Your task to perform on an android device: toggle javascript in the chrome app Image 0: 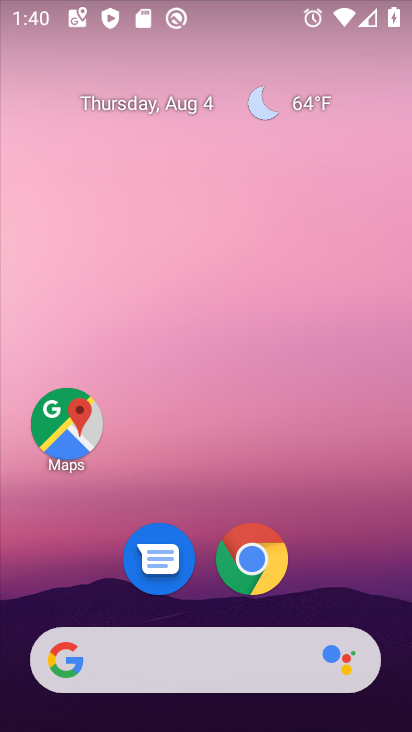
Step 0: click (256, 558)
Your task to perform on an android device: toggle javascript in the chrome app Image 1: 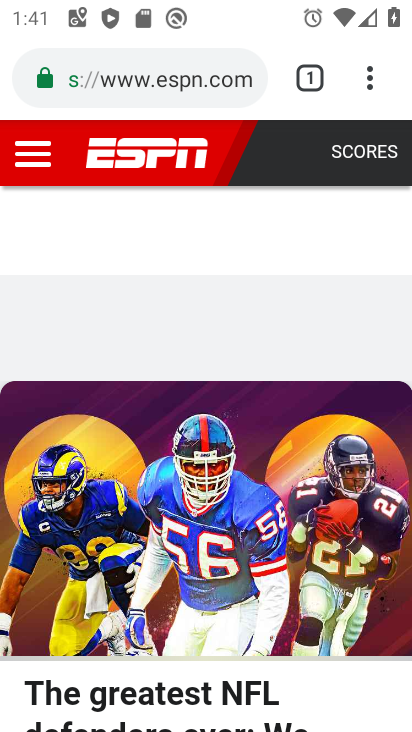
Step 1: click (371, 79)
Your task to perform on an android device: toggle javascript in the chrome app Image 2: 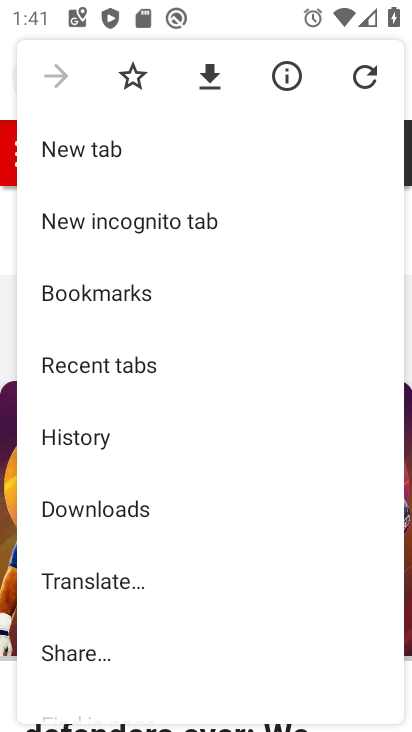
Step 2: drag from (96, 537) to (153, 457)
Your task to perform on an android device: toggle javascript in the chrome app Image 3: 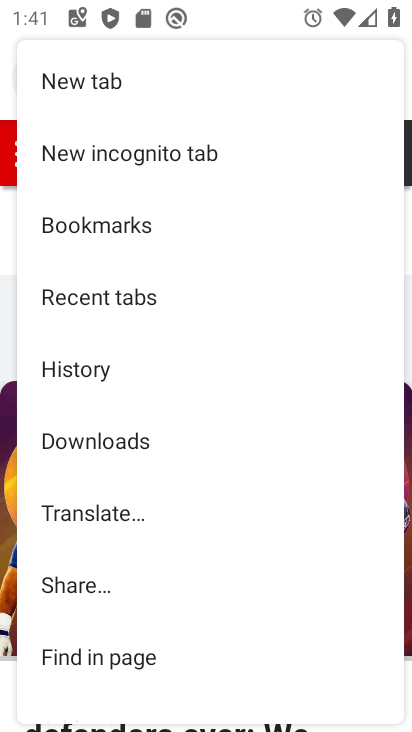
Step 3: drag from (108, 576) to (180, 482)
Your task to perform on an android device: toggle javascript in the chrome app Image 4: 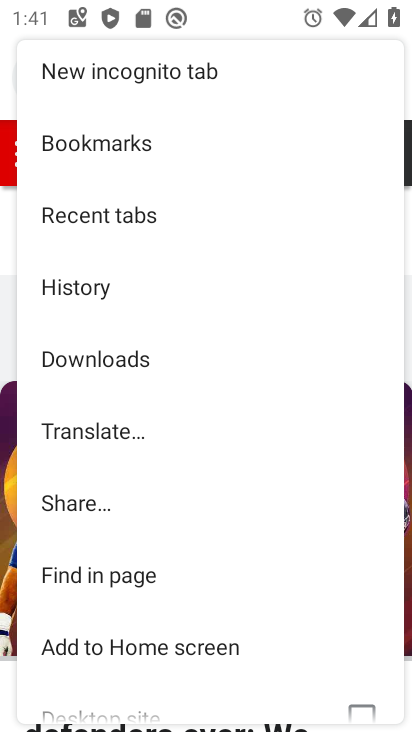
Step 4: drag from (94, 600) to (197, 480)
Your task to perform on an android device: toggle javascript in the chrome app Image 5: 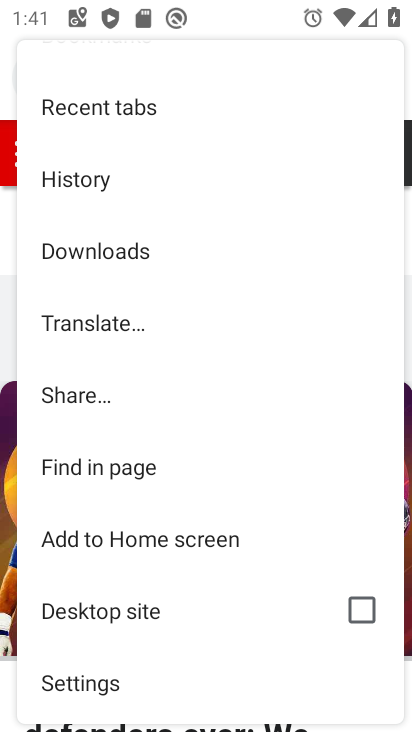
Step 5: drag from (123, 571) to (230, 436)
Your task to perform on an android device: toggle javascript in the chrome app Image 6: 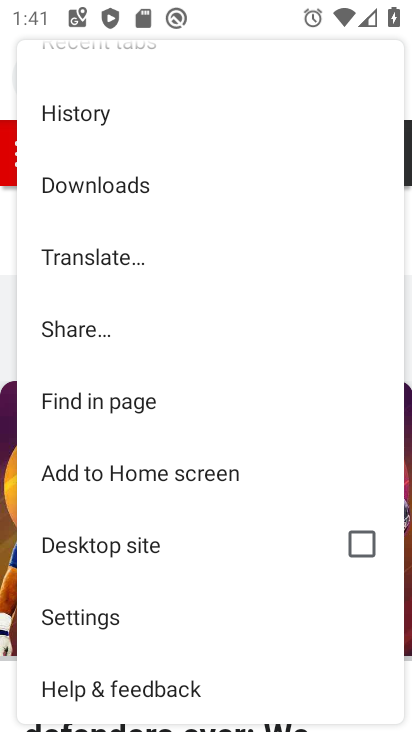
Step 6: click (99, 617)
Your task to perform on an android device: toggle javascript in the chrome app Image 7: 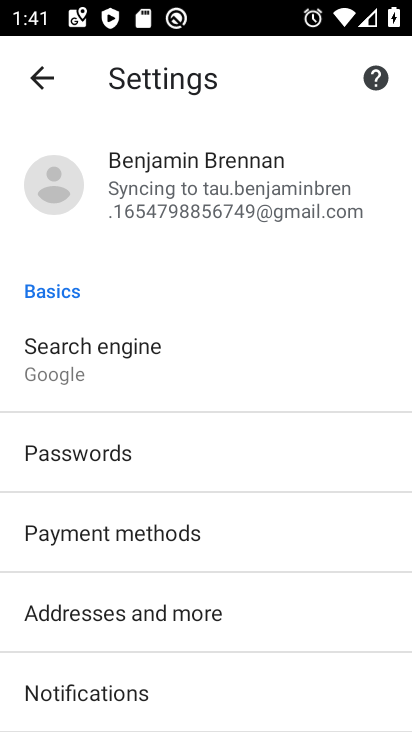
Step 7: drag from (90, 654) to (157, 551)
Your task to perform on an android device: toggle javascript in the chrome app Image 8: 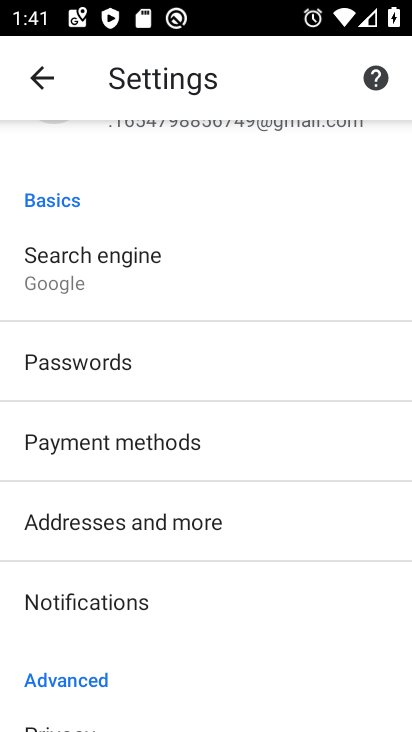
Step 8: drag from (176, 567) to (229, 468)
Your task to perform on an android device: toggle javascript in the chrome app Image 9: 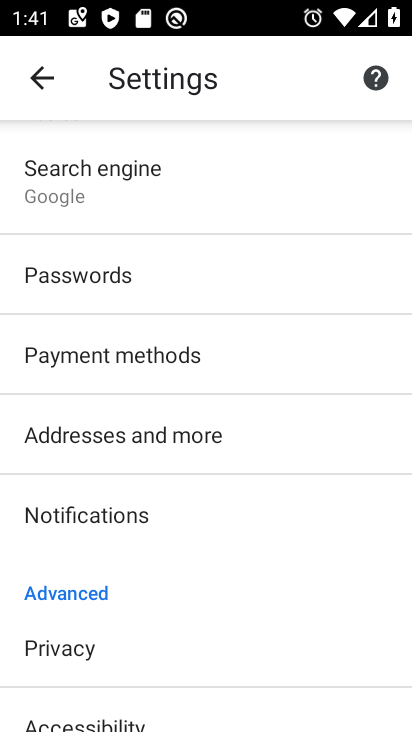
Step 9: drag from (117, 639) to (181, 497)
Your task to perform on an android device: toggle javascript in the chrome app Image 10: 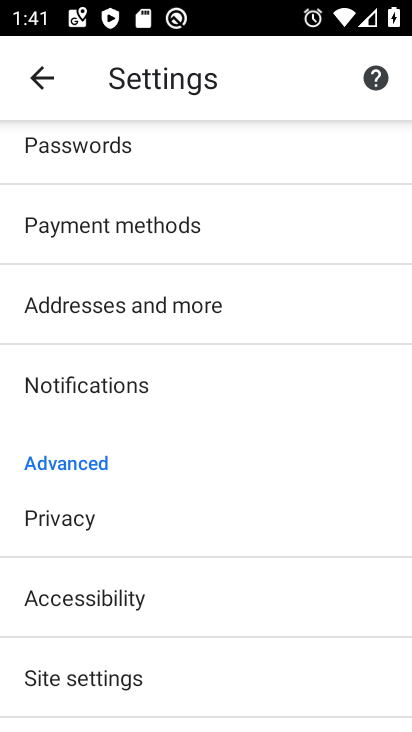
Step 10: drag from (116, 644) to (221, 507)
Your task to perform on an android device: toggle javascript in the chrome app Image 11: 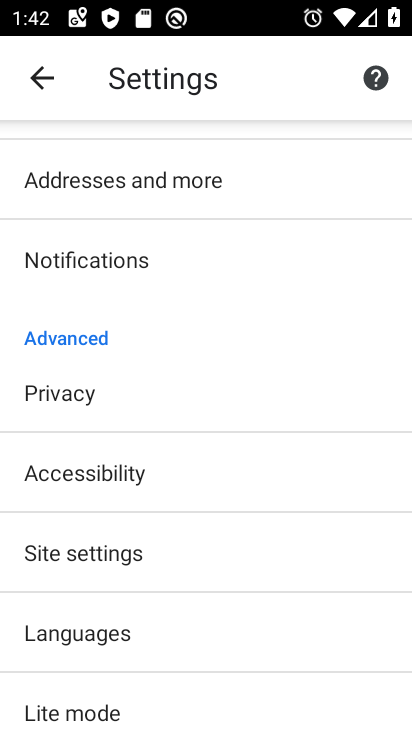
Step 11: click (113, 552)
Your task to perform on an android device: toggle javascript in the chrome app Image 12: 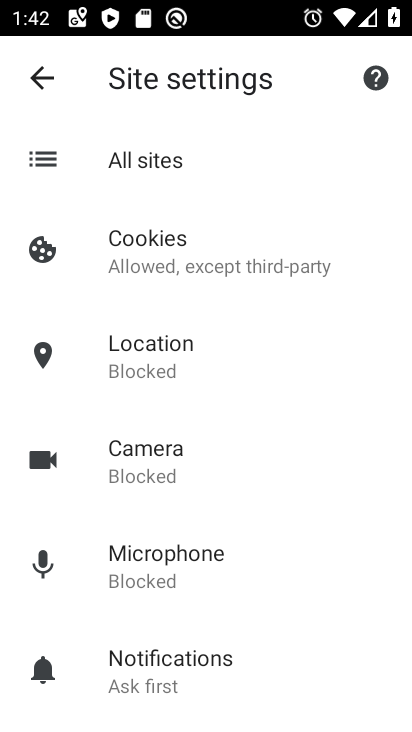
Step 12: drag from (168, 623) to (209, 482)
Your task to perform on an android device: toggle javascript in the chrome app Image 13: 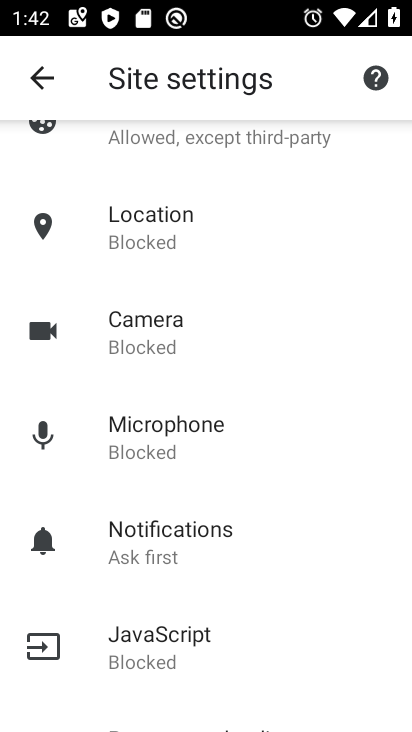
Step 13: drag from (138, 612) to (215, 487)
Your task to perform on an android device: toggle javascript in the chrome app Image 14: 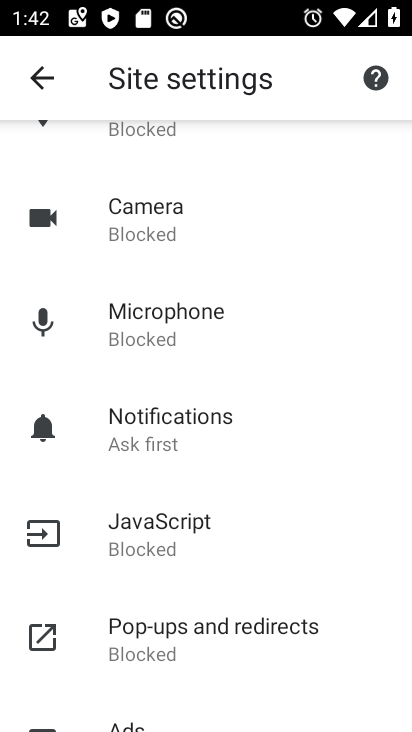
Step 14: click (207, 534)
Your task to perform on an android device: toggle javascript in the chrome app Image 15: 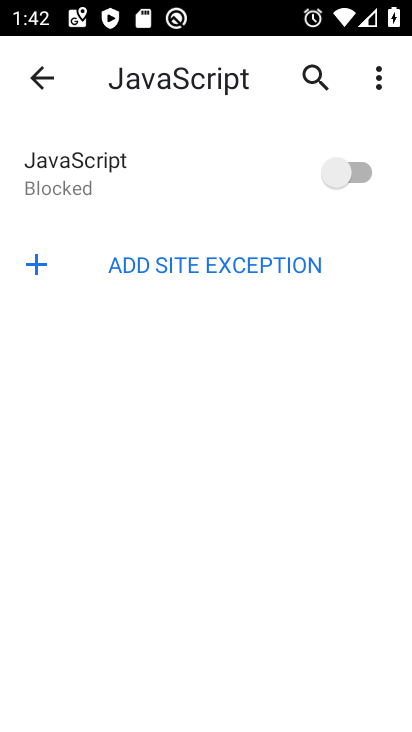
Step 15: click (350, 178)
Your task to perform on an android device: toggle javascript in the chrome app Image 16: 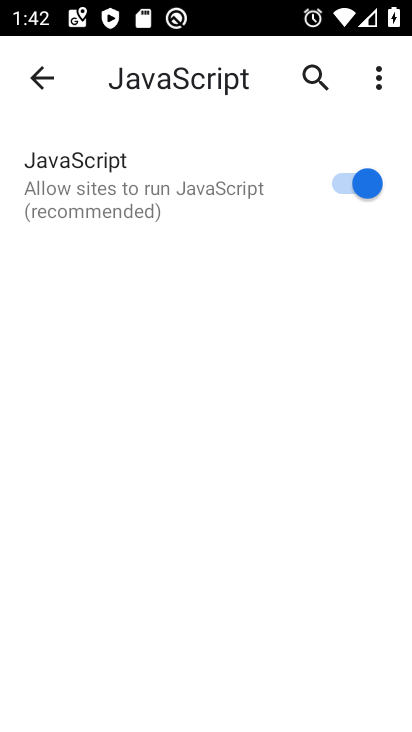
Step 16: task complete